Your task to perform on an android device: Open Chrome and go to the settings page Image 0: 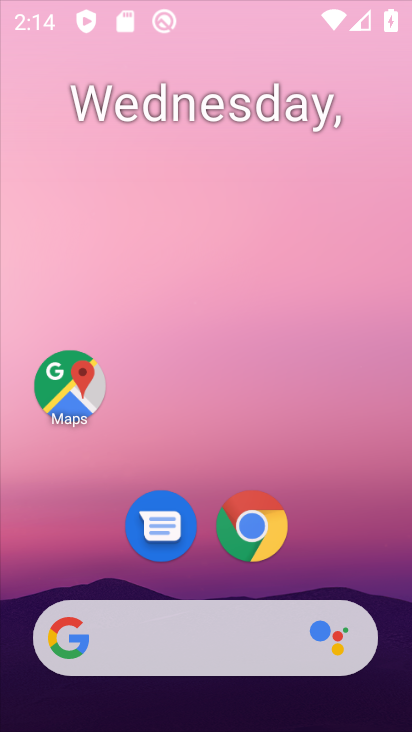
Step 0: drag from (220, 23) to (79, 80)
Your task to perform on an android device: Open Chrome and go to the settings page Image 1: 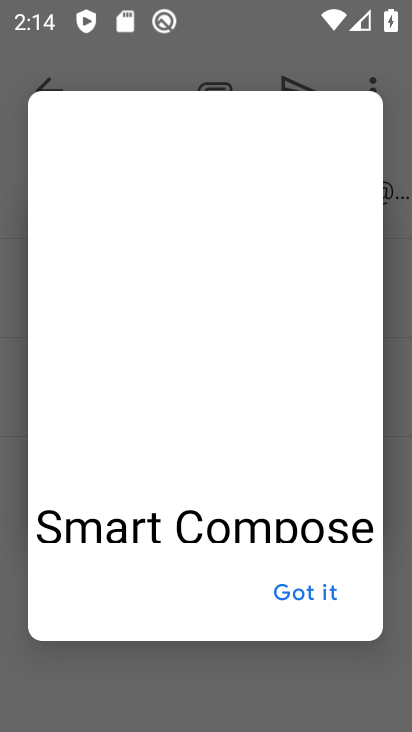
Step 1: press home button
Your task to perform on an android device: Open Chrome and go to the settings page Image 2: 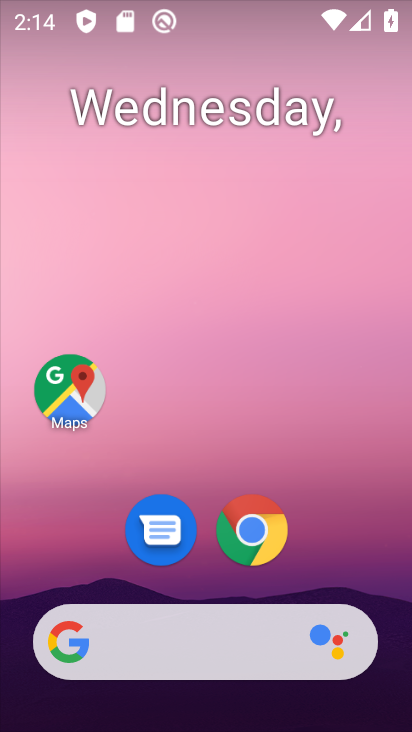
Step 2: drag from (235, 623) to (219, 2)
Your task to perform on an android device: Open Chrome and go to the settings page Image 3: 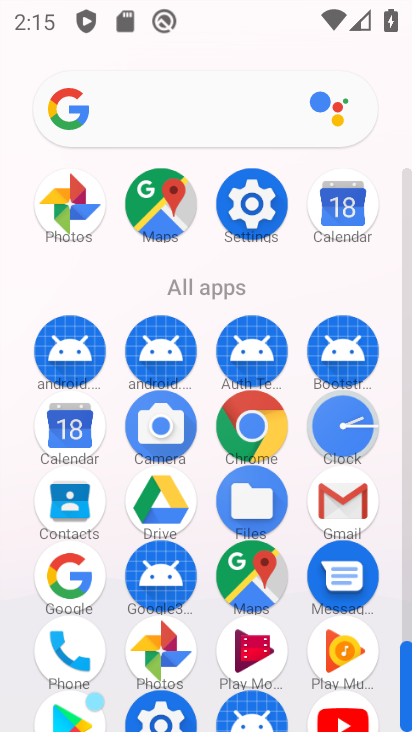
Step 3: click (245, 426)
Your task to perform on an android device: Open Chrome and go to the settings page Image 4: 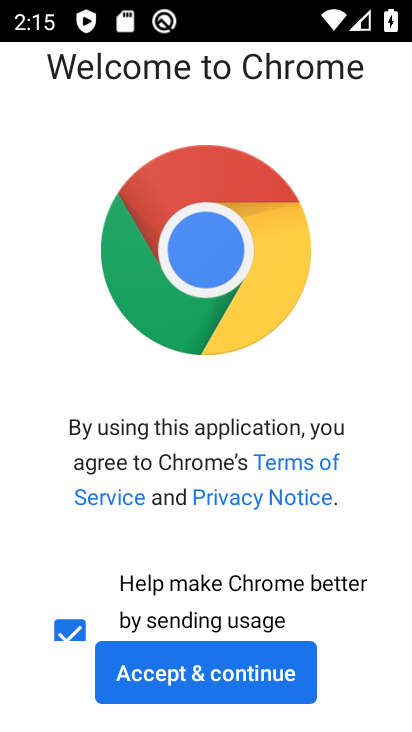
Step 4: click (252, 670)
Your task to perform on an android device: Open Chrome and go to the settings page Image 5: 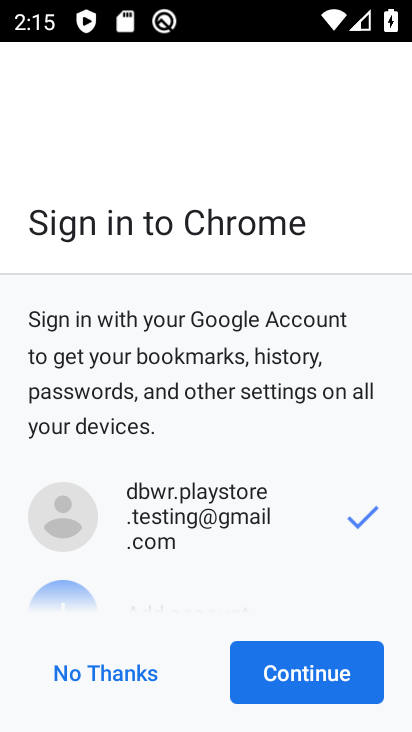
Step 5: click (299, 677)
Your task to perform on an android device: Open Chrome and go to the settings page Image 6: 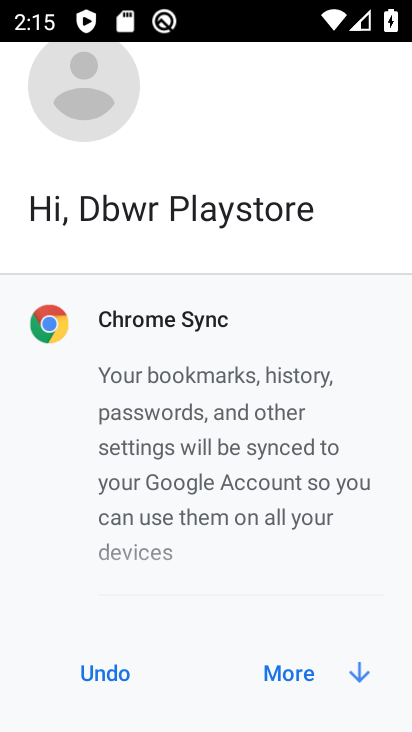
Step 6: click (299, 677)
Your task to perform on an android device: Open Chrome and go to the settings page Image 7: 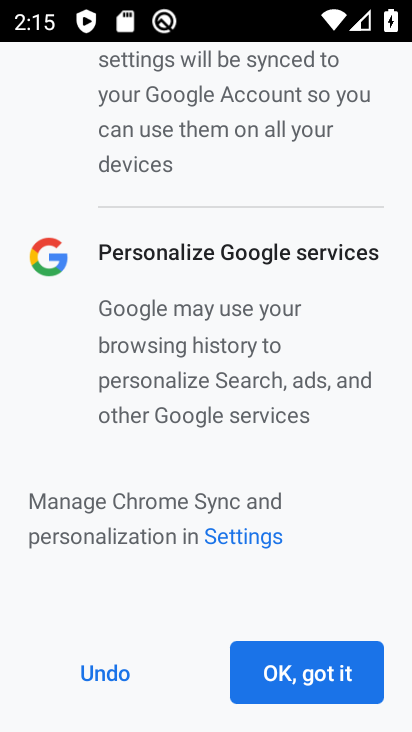
Step 7: click (299, 677)
Your task to perform on an android device: Open Chrome and go to the settings page Image 8: 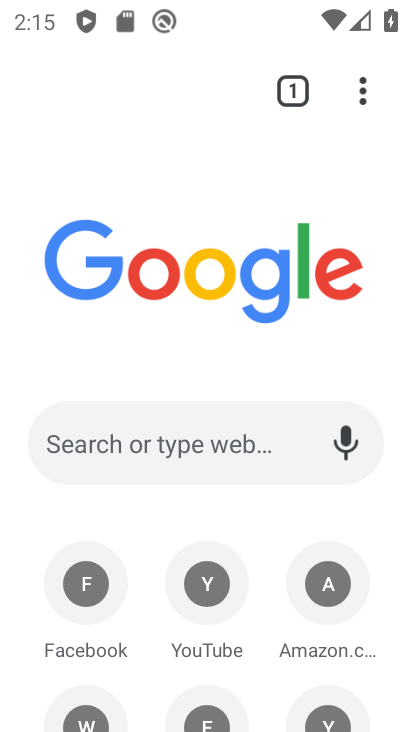
Step 8: click (375, 91)
Your task to perform on an android device: Open Chrome and go to the settings page Image 9: 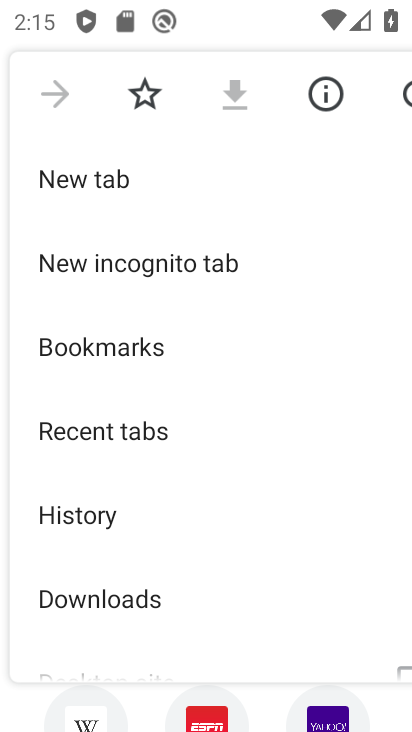
Step 9: drag from (160, 577) to (133, 41)
Your task to perform on an android device: Open Chrome and go to the settings page Image 10: 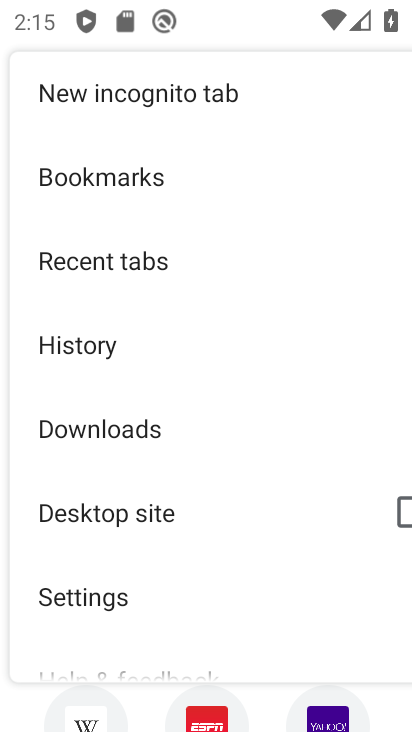
Step 10: click (98, 593)
Your task to perform on an android device: Open Chrome and go to the settings page Image 11: 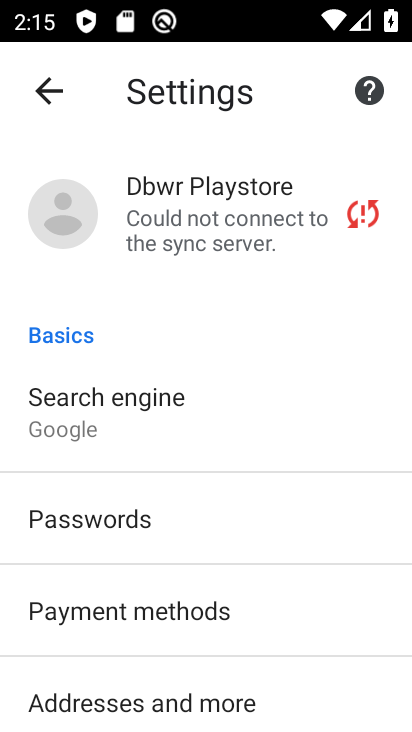
Step 11: task complete